Your task to perform on an android device: Clear the cart on ebay. Add razer kraken to the cart on ebay, then select checkout. Image 0: 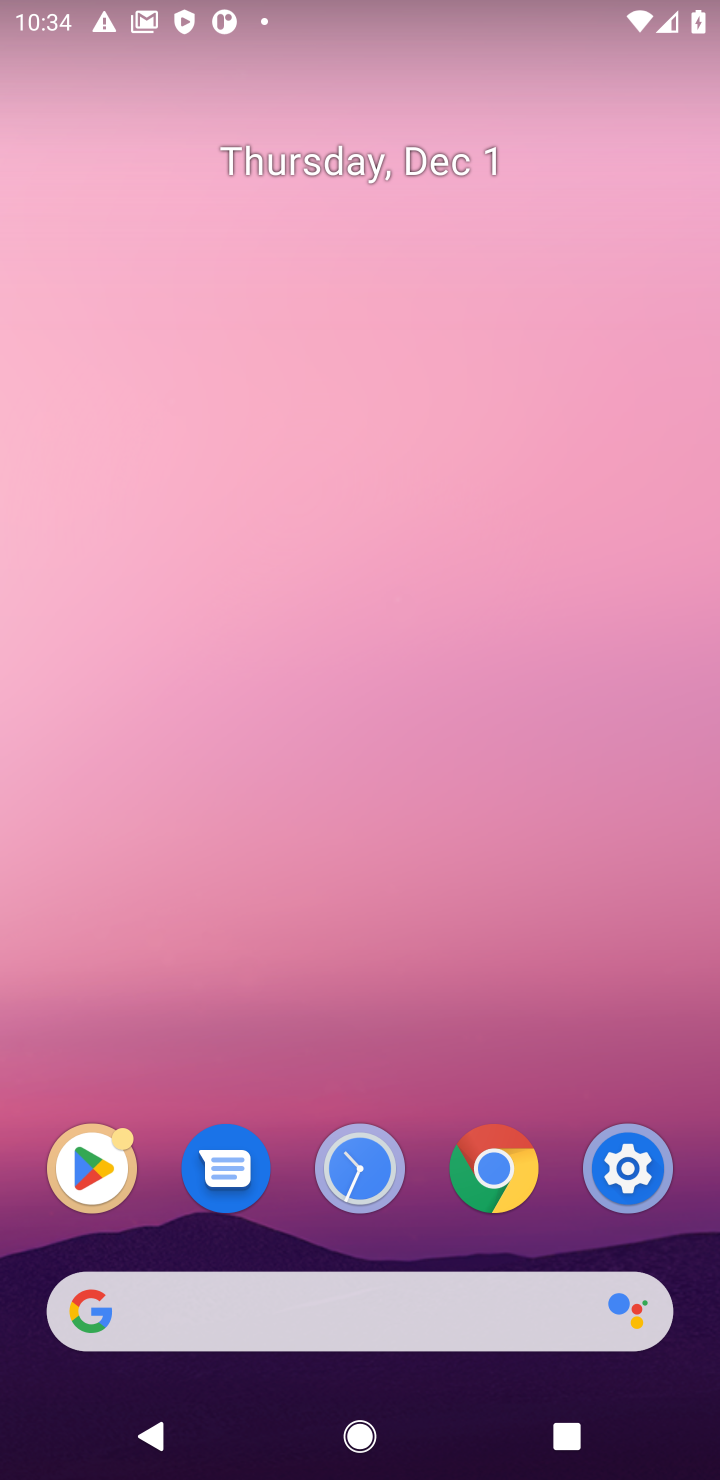
Step 0: click (487, 1180)
Your task to perform on an android device: Clear the cart on ebay. Add razer kraken to the cart on ebay, then select checkout. Image 1: 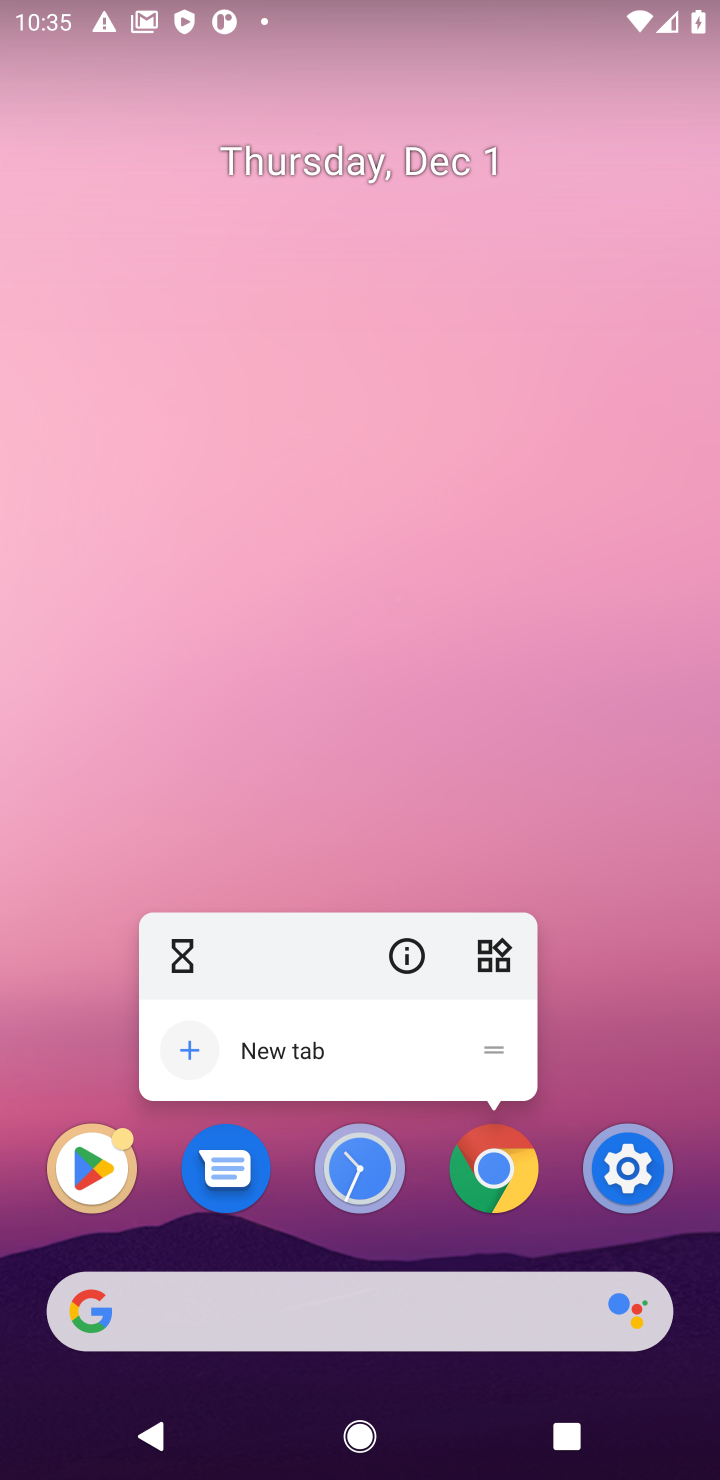
Step 1: click (477, 1159)
Your task to perform on an android device: Clear the cart on ebay. Add razer kraken to the cart on ebay, then select checkout. Image 2: 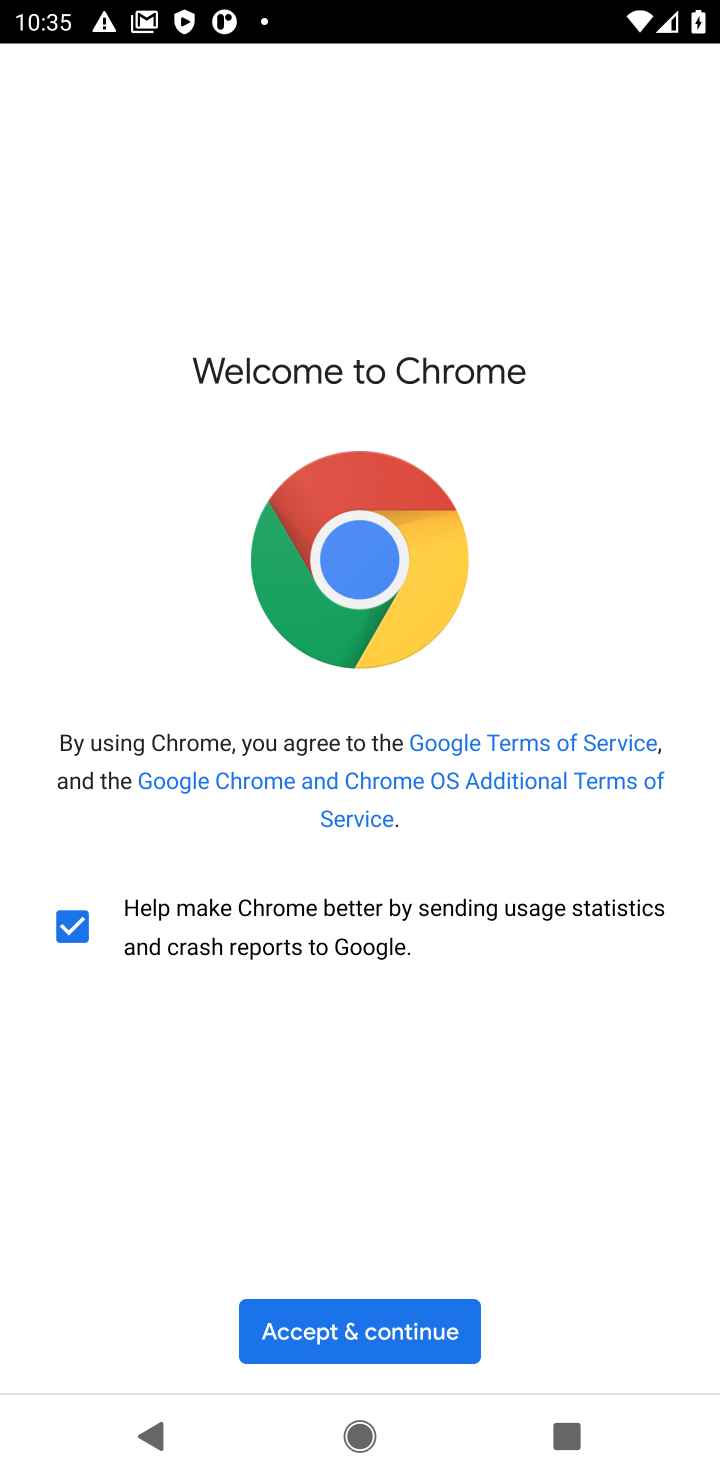
Step 2: click (336, 1340)
Your task to perform on an android device: Clear the cart on ebay. Add razer kraken to the cart on ebay, then select checkout. Image 3: 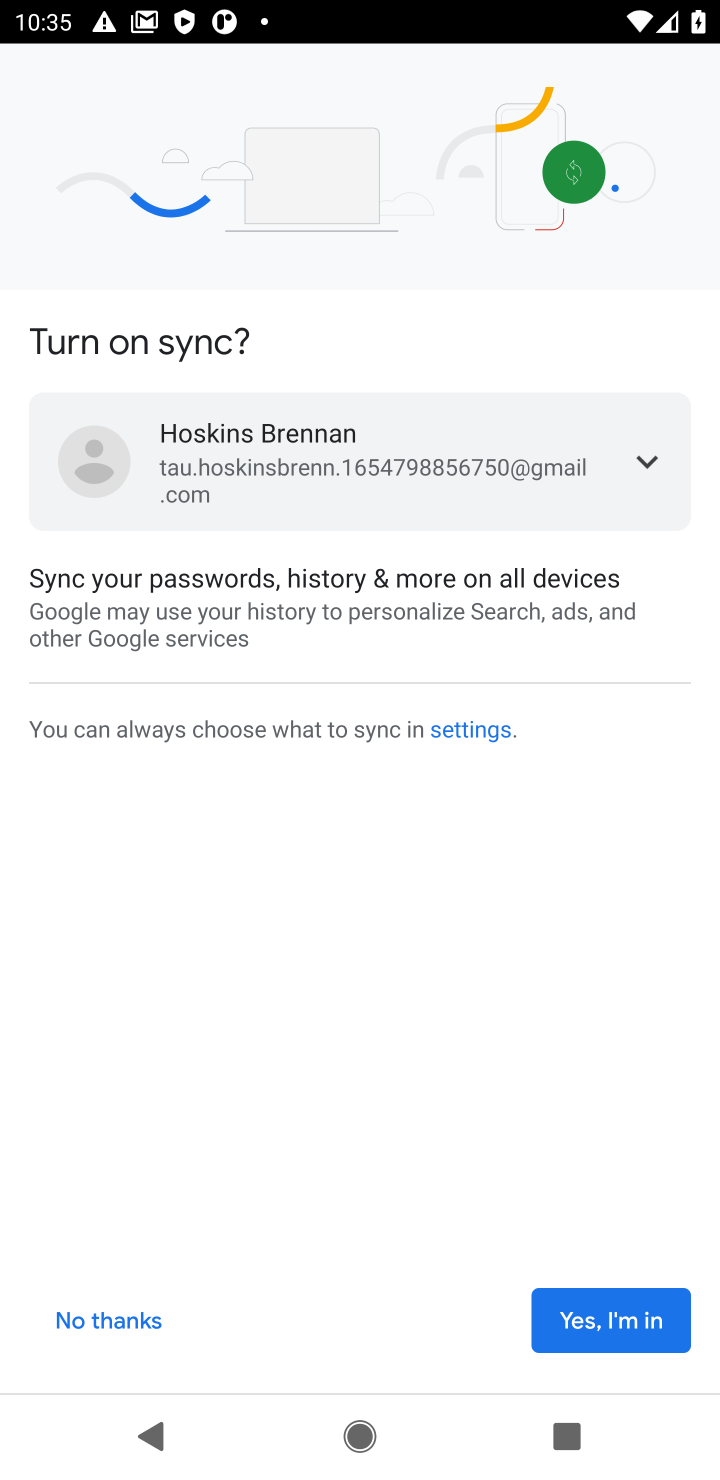
Step 3: click (151, 1313)
Your task to perform on an android device: Clear the cart on ebay. Add razer kraken to the cart on ebay, then select checkout. Image 4: 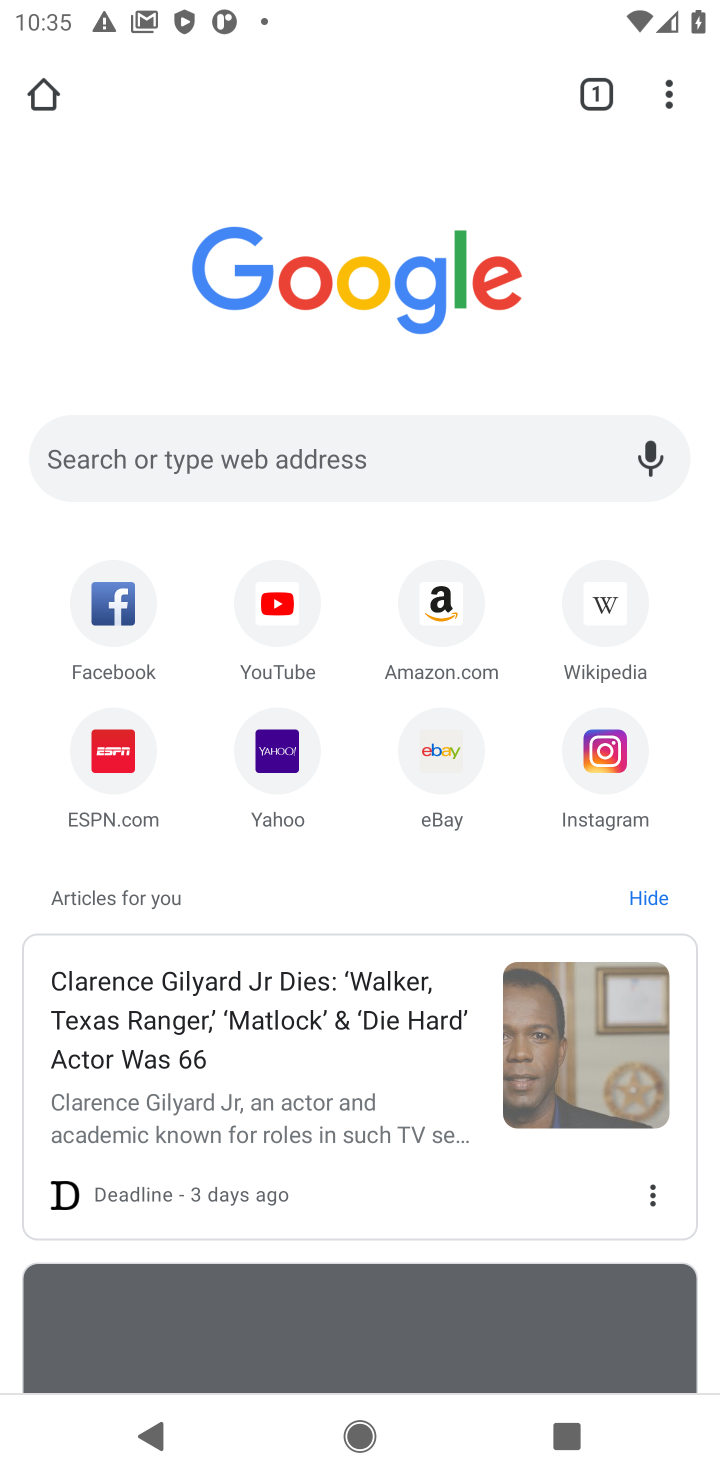
Step 4: click (437, 772)
Your task to perform on an android device: Clear the cart on ebay. Add razer kraken to the cart on ebay, then select checkout. Image 5: 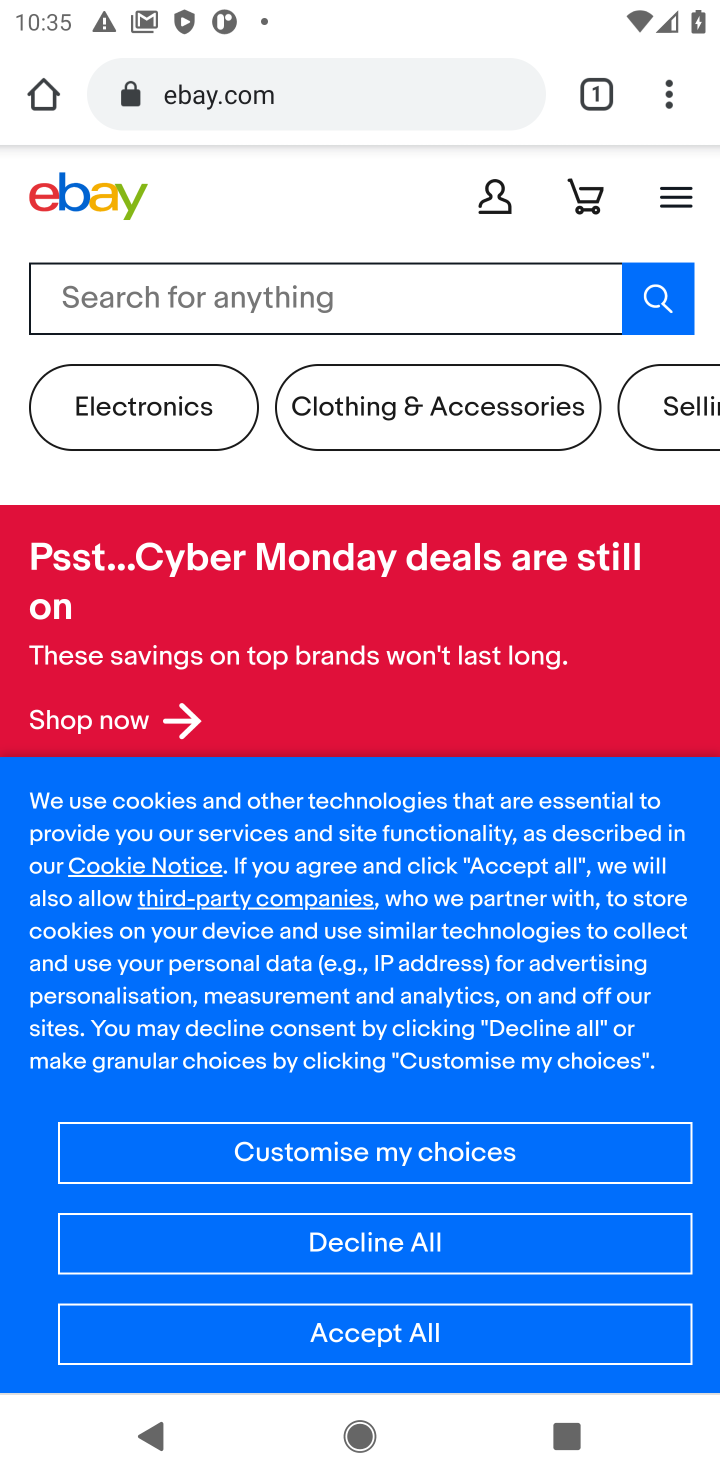
Step 5: click (585, 201)
Your task to perform on an android device: Clear the cart on ebay. Add razer kraken to the cart on ebay, then select checkout. Image 6: 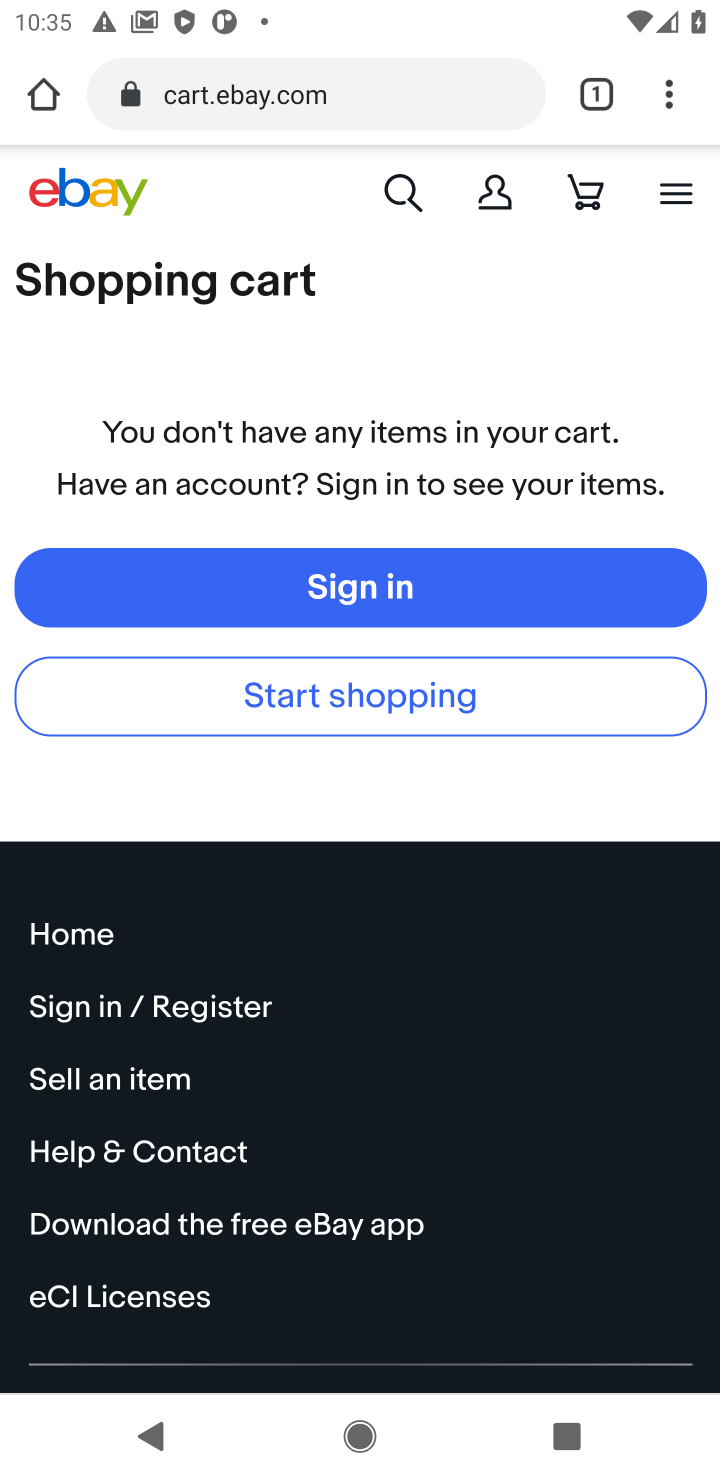
Step 6: click (397, 188)
Your task to perform on an android device: Clear the cart on ebay. Add razer kraken to the cart on ebay, then select checkout. Image 7: 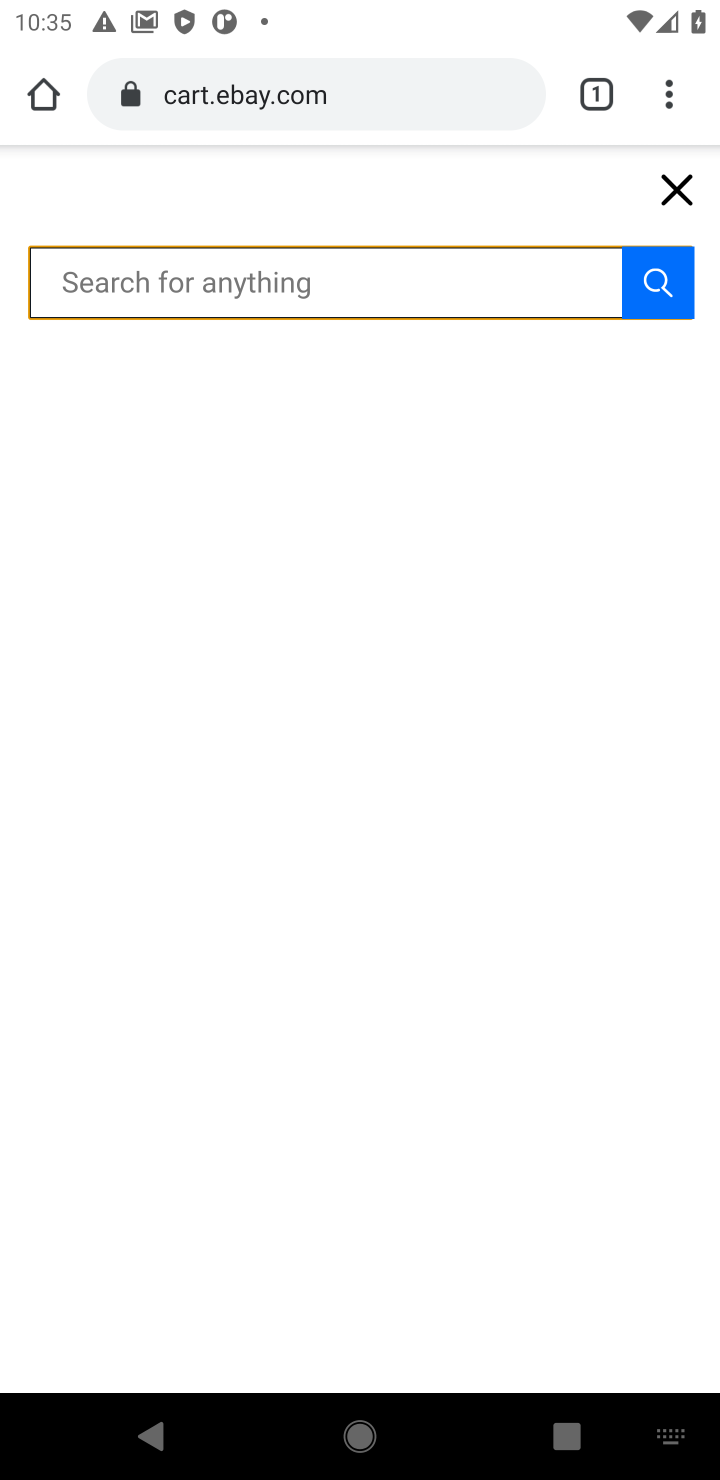
Step 7: type "razer kraken"
Your task to perform on an android device: Clear the cart on ebay. Add razer kraken to the cart on ebay, then select checkout. Image 8: 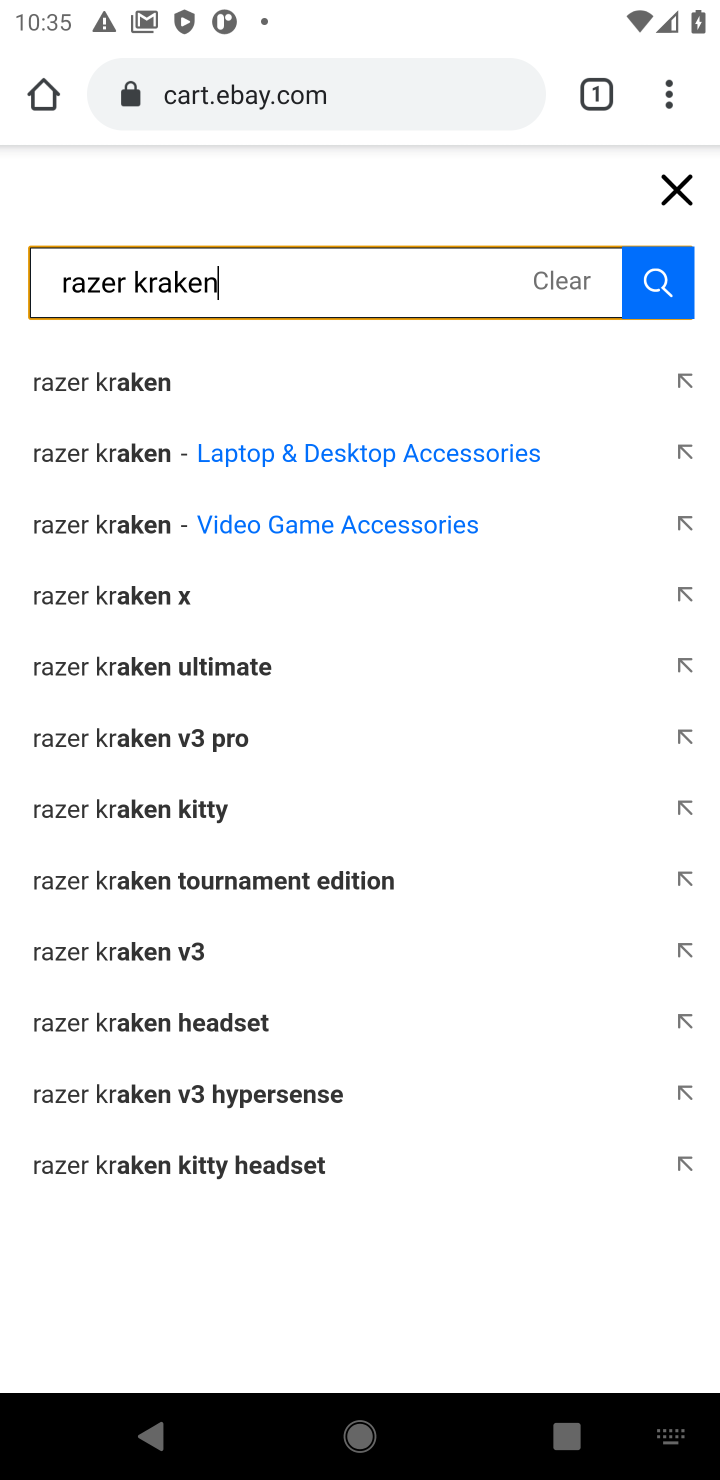
Step 8: click (96, 392)
Your task to perform on an android device: Clear the cart on ebay. Add razer kraken to the cart on ebay, then select checkout. Image 9: 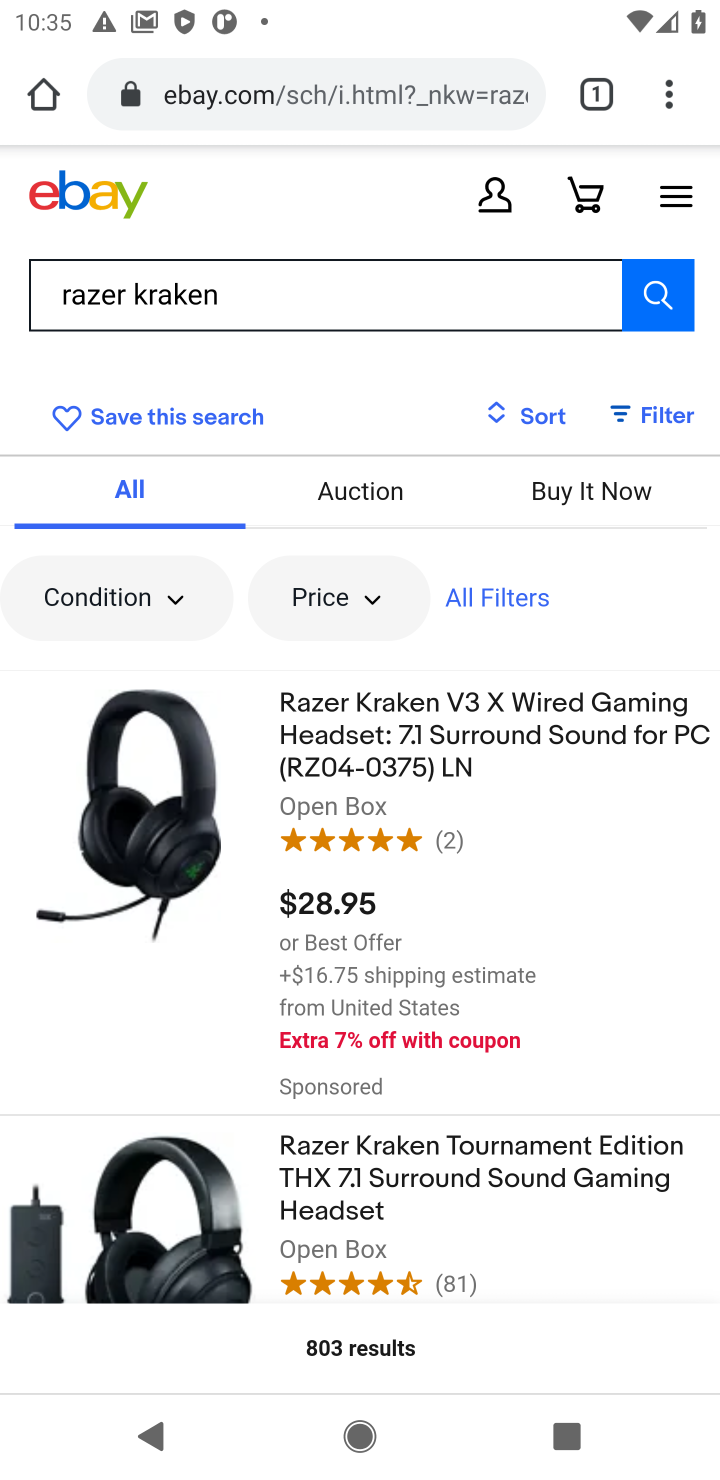
Step 9: click (342, 718)
Your task to perform on an android device: Clear the cart on ebay. Add razer kraken to the cart on ebay, then select checkout. Image 10: 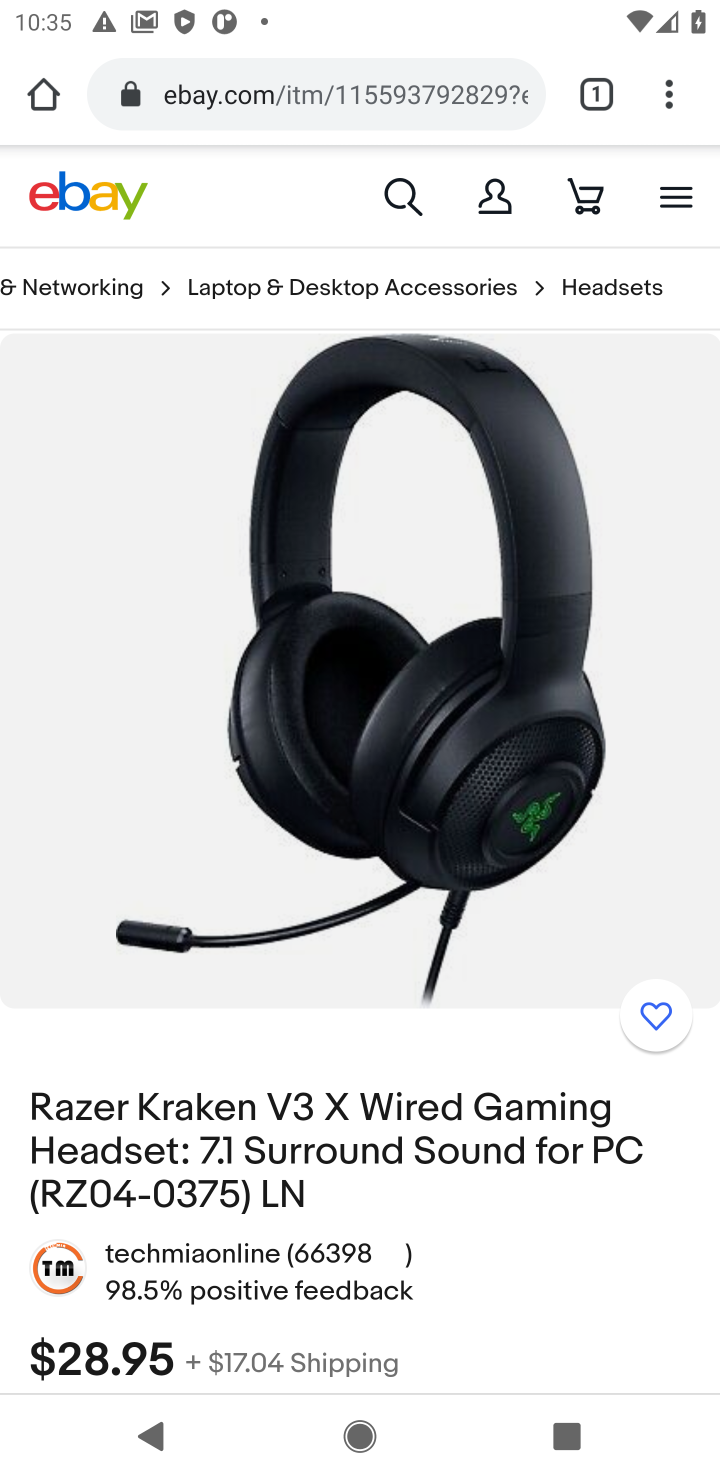
Step 10: drag from (346, 872) to (350, 458)
Your task to perform on an android device: Clear the cart on ebay. Add razer kraken to the cart on ebay, then select checkout. Image 11: 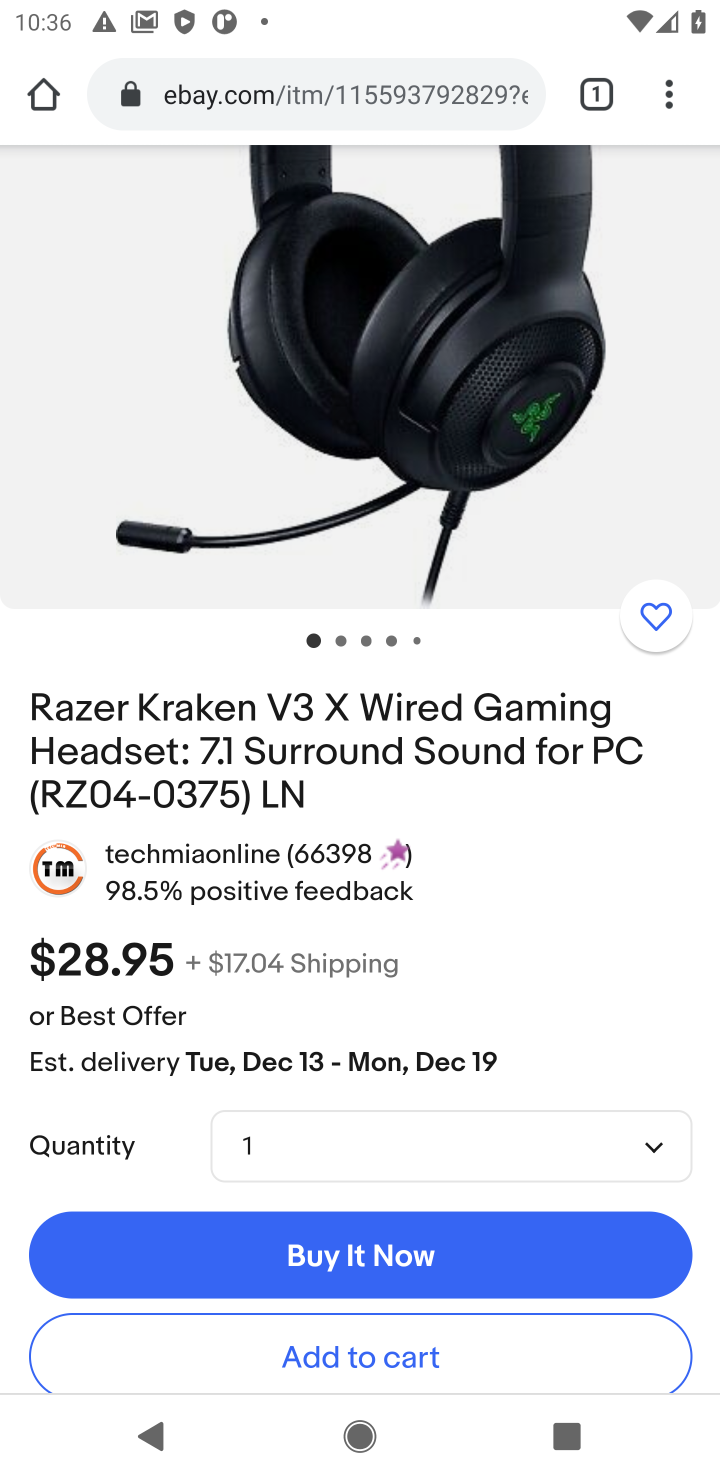
Step 11: drag from (452, 992) to (417, 627)
Your task to perform on an android device: Clear the cart on ebay. Add razer kraken to the cart on ebay, then select checkout. Image 12: 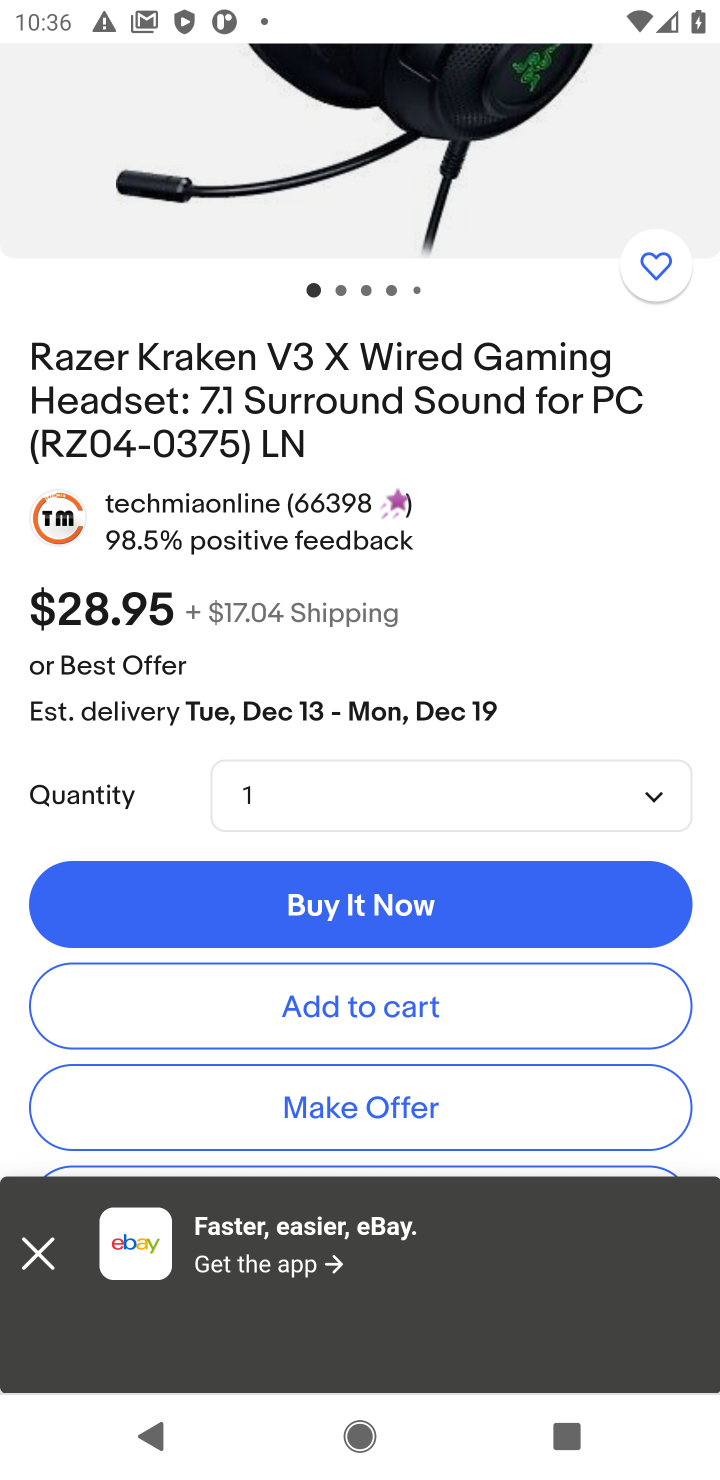
Step 12: click (360, 989)
Your task to perform on an android device: Clear the cart on ebay. Add razer kraken to the cart on ebay, then select checkout. Image 13: 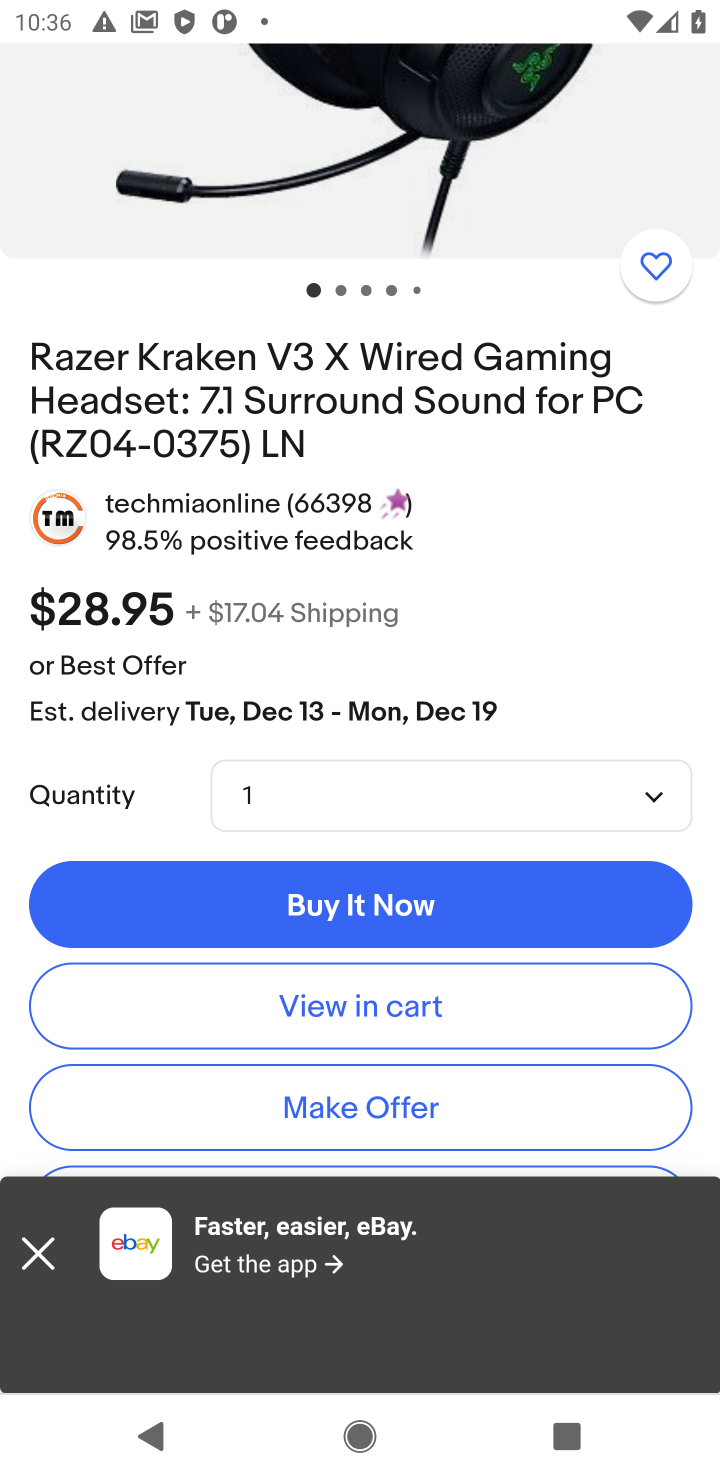
Step 13: click (353, 1018)
Your task to perform on an android device: Clear the cart on ebay. Add razer kraken to the cart on ebay, then select checkout. Image 14: 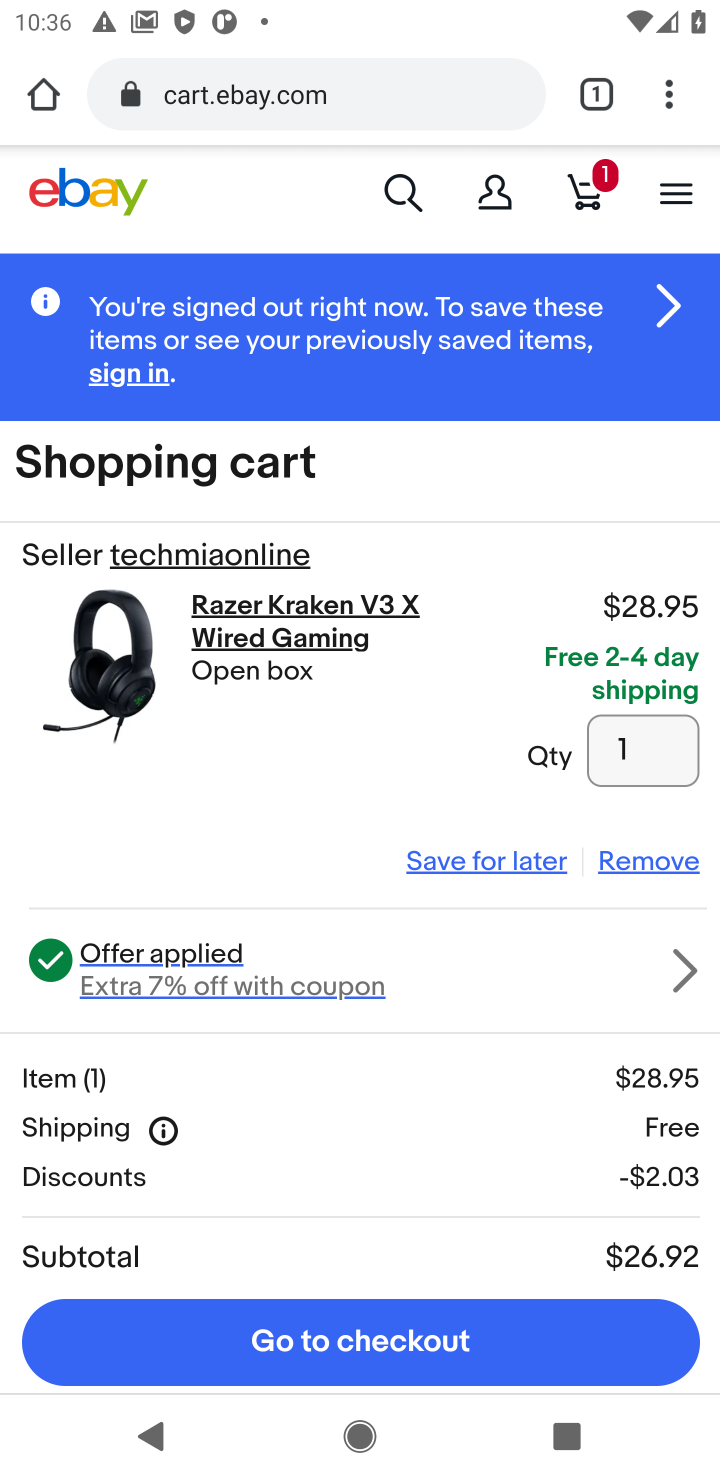
Step 14: click (317, 1321)
Your task to perform on an android device: Clear the cart on ebay. Add razer kraken to the cart on ebay, then select checkout. Image 15: 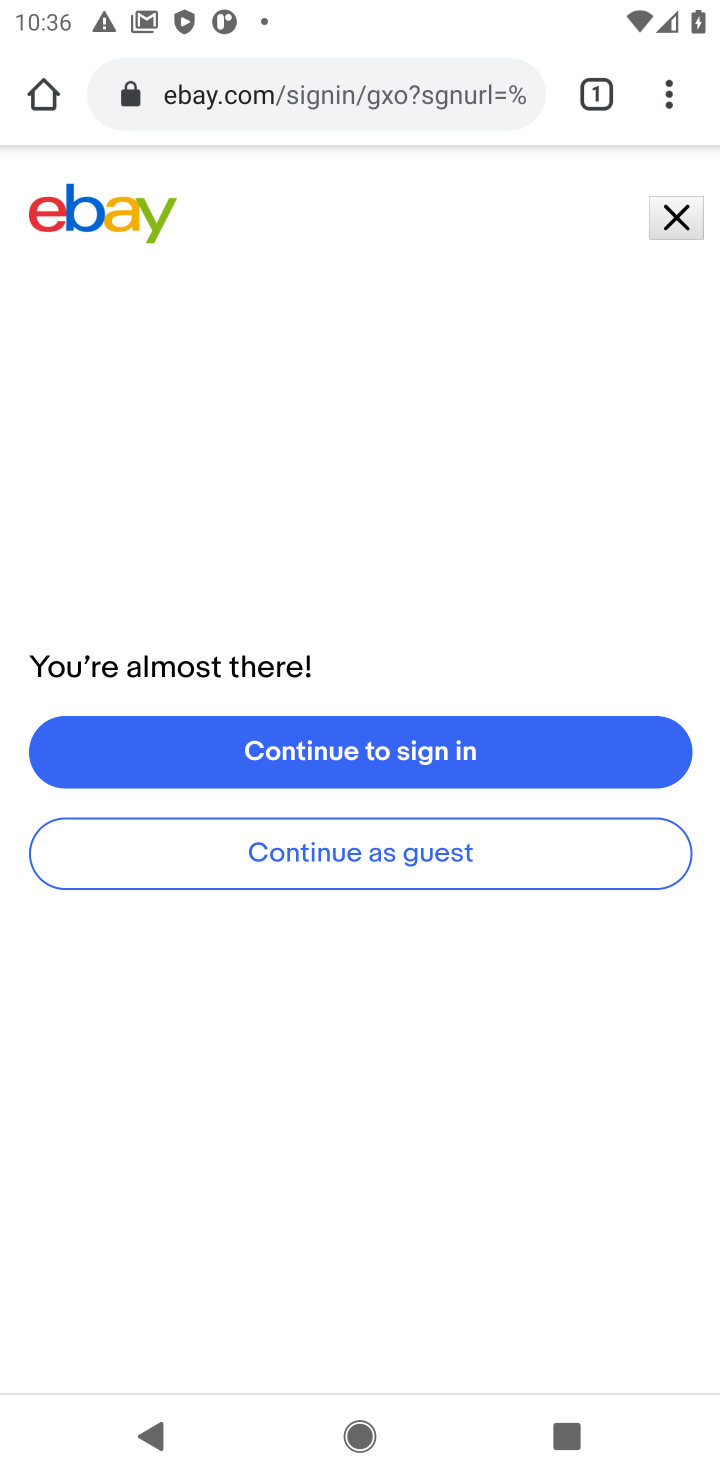
Step 15: task complete